Your task to perform on an android device: show emergency info Image 0: 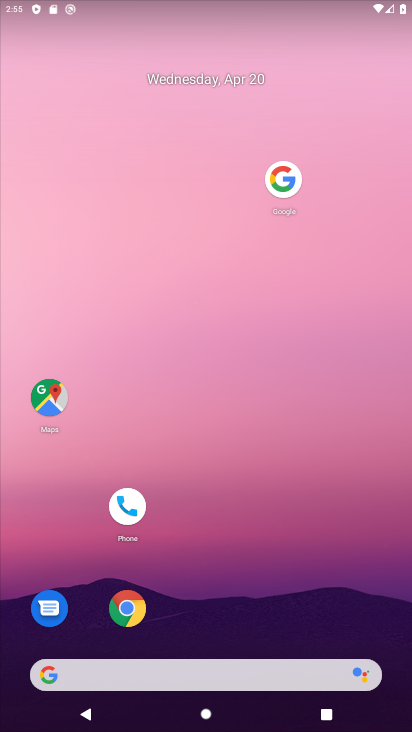
Step 0: drag from (222, 603) to (250, 112)
Your task to perform on an android device: show emergency info Image 1: 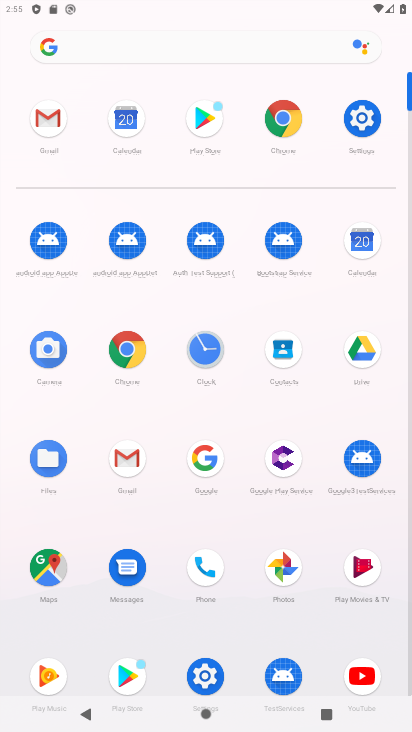
Step 1: click (360, 122)
Your task to perform on an android device: show emergency info Image 2: 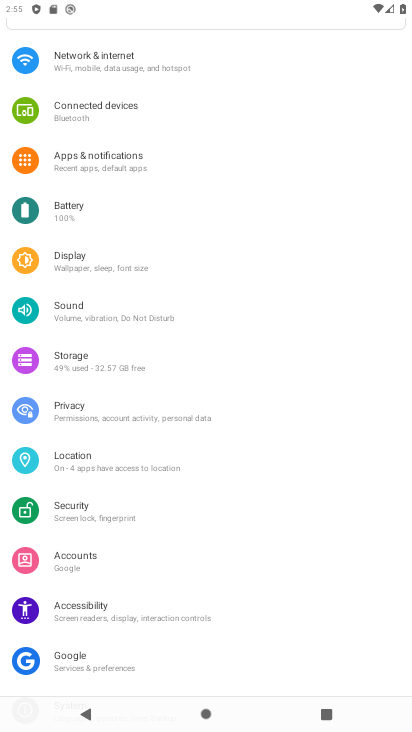
Step 2: drag from (229, 478) to (304, 168)
Your task to perform on an android device: show emergency info Image 3: 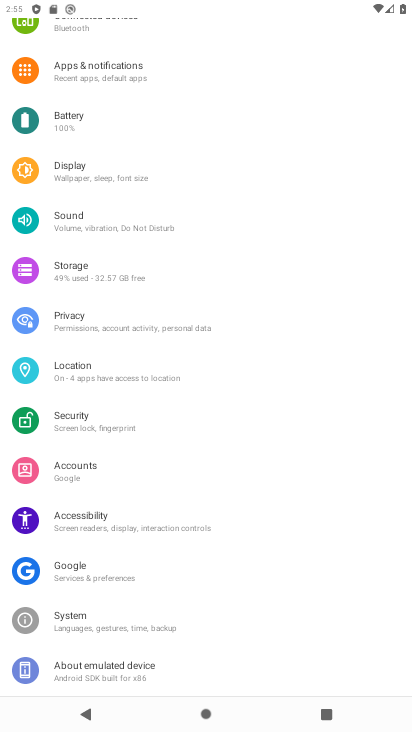
Step 3: click (103, 665)
Your task to perform on an android device: show emergency info Image 4: 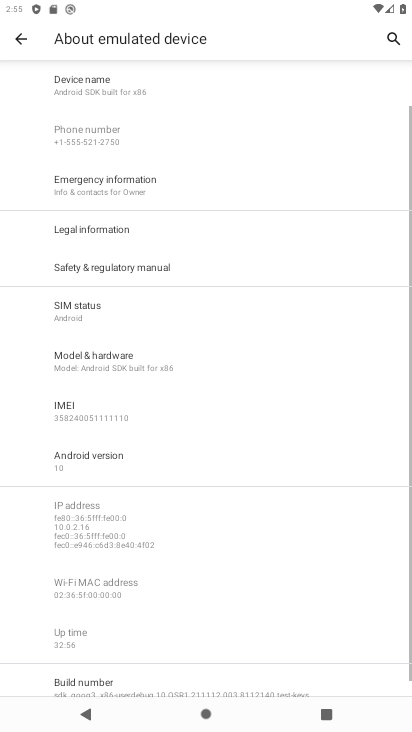
Step 4: click (155, 187)
Your task to perform on an android device: show emergency info Image 5: 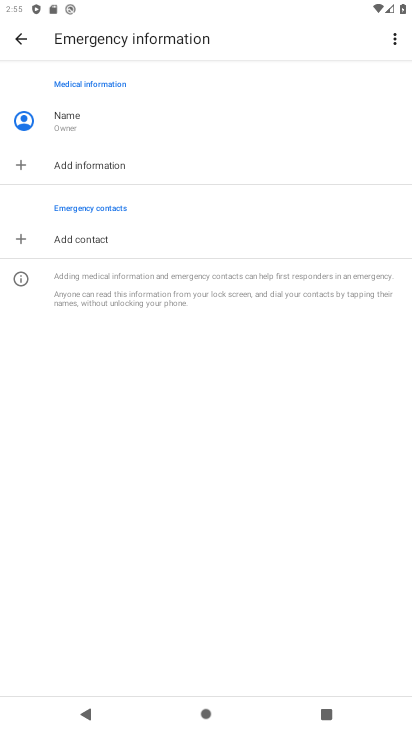
Step 5: task complete